Your task to perform on an android device: Open Yahoo.com Image 0: 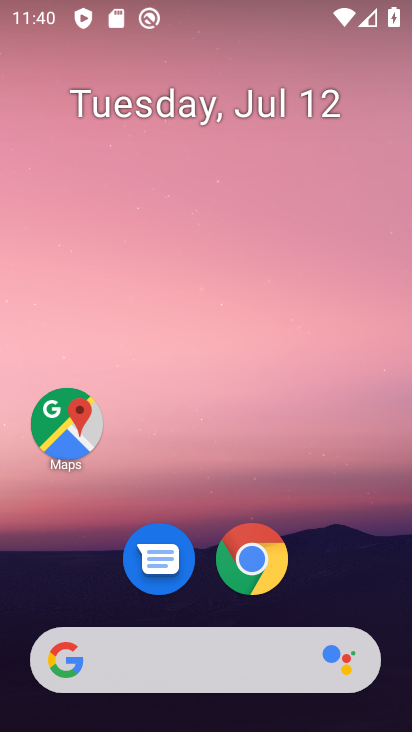
Step 0: drag from (247, 630) to (320, 187)
Your task to perform on an android device: Open Yahoo.com Image 1: 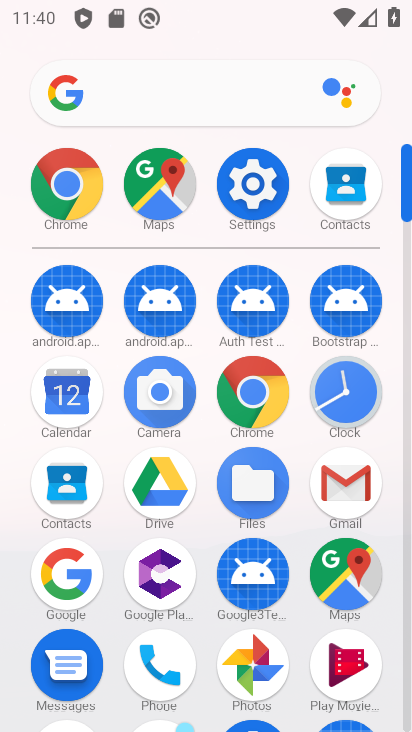
Step 1: click (54, 209)
Your task to perform on an android device: Open Yahoo.com Image 2: 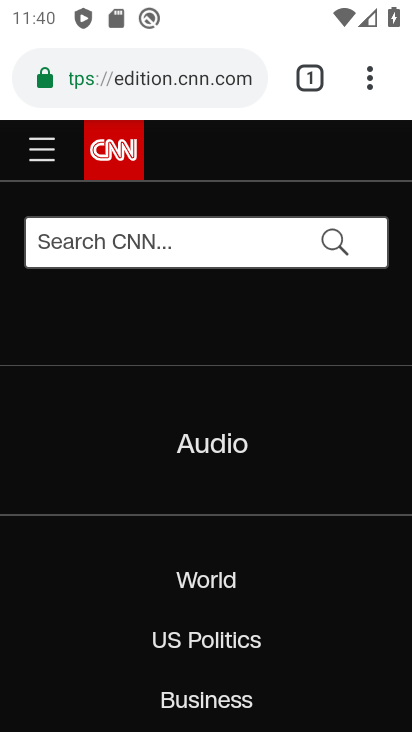
Step 2: click (226, 91)
Your task to perform on an android device: Open Yahoo.com Image 3: 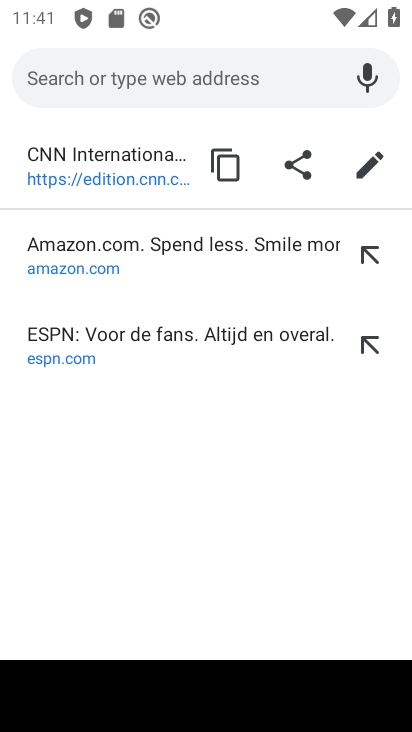
Step 3: type "yahoo"
Your task to perform on an android device: Open Yahoo.com Image 4: 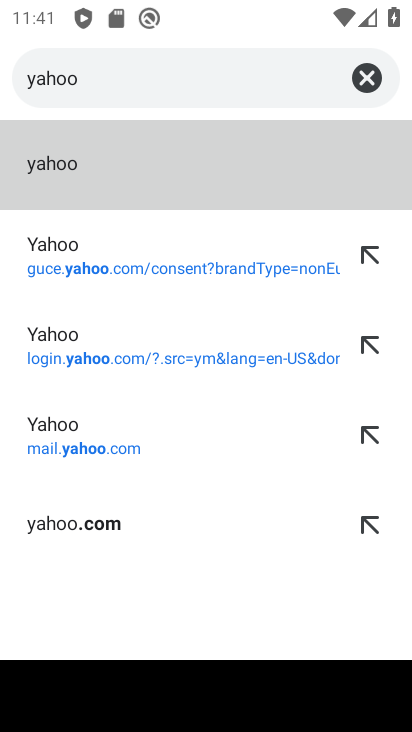
Step 4: click (130, 439)
Your task to perform on an android device: Open Yahoo.com Image 5: 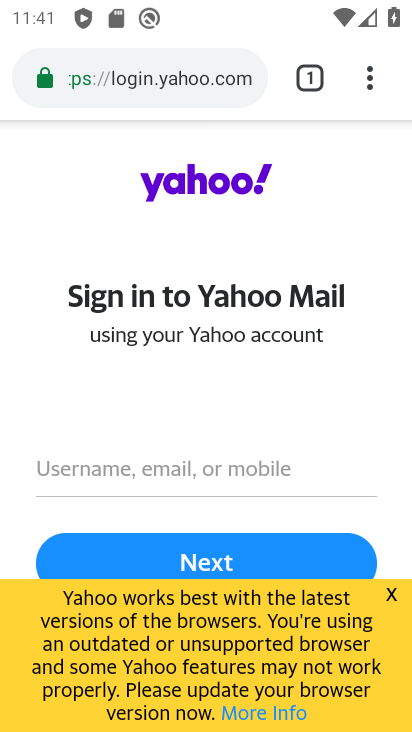
Step 5: task complete